Your task to perform on an android device: open a bookmark in the chrome app Image 0: 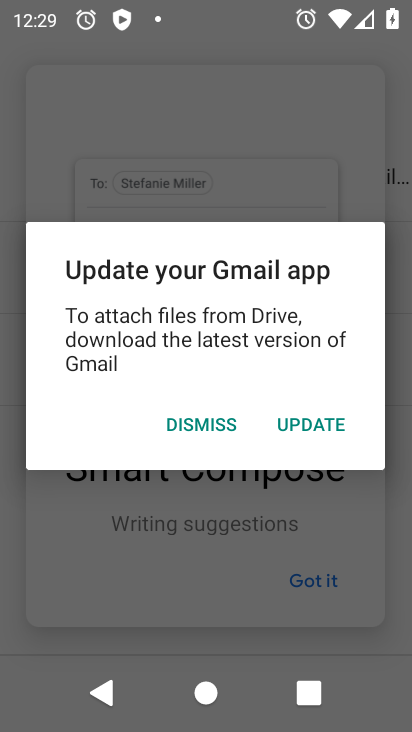
Step 0: press home button
Your task to perform on an android device: open a bookmark in the chrome app Image 1: 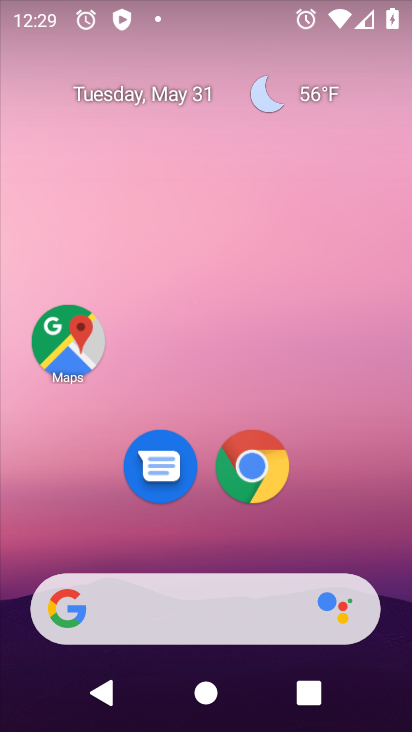
Step 1: click (256, 477)
Your task to perform on an android device: open a bookmark in the chrome app Image 2: 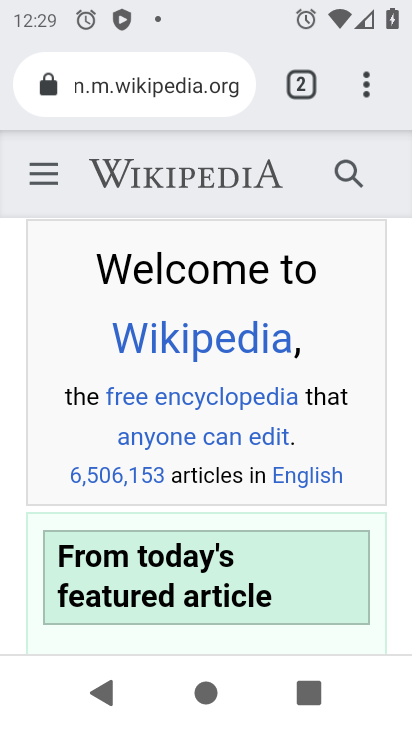
Step 2: task complete